Your task to perform on an android device: Go to Google maps Image 0: 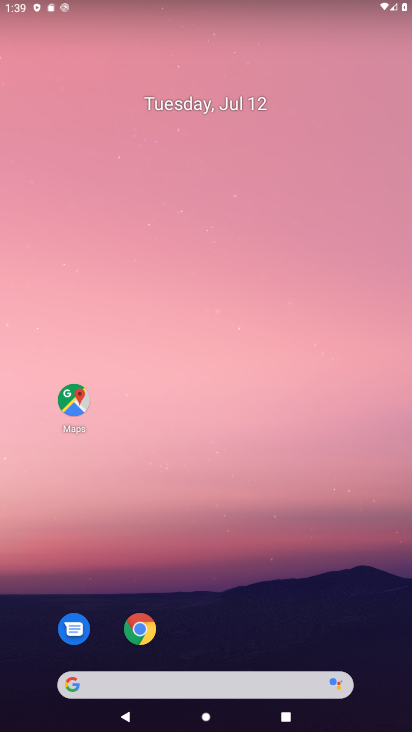
Step 0: click (74, 406)
Your task to perform on an android device: Go to Google maps Image 1: 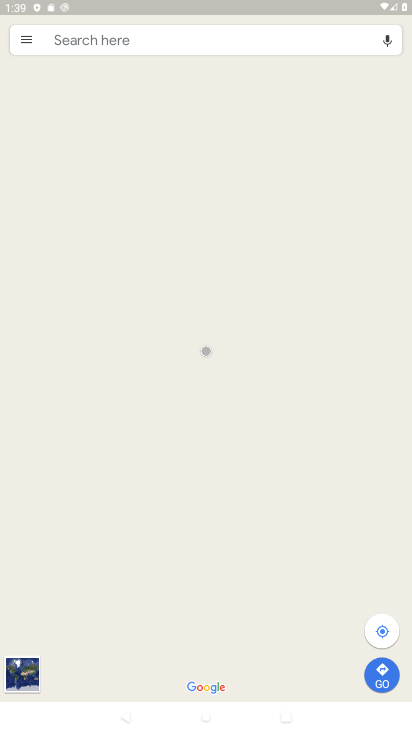
Step 1: task complete